Your task to perform on an android device: Search for apple airpods pro on ebay, select the first entry, add it to the cart, then select checkout. Image 0: 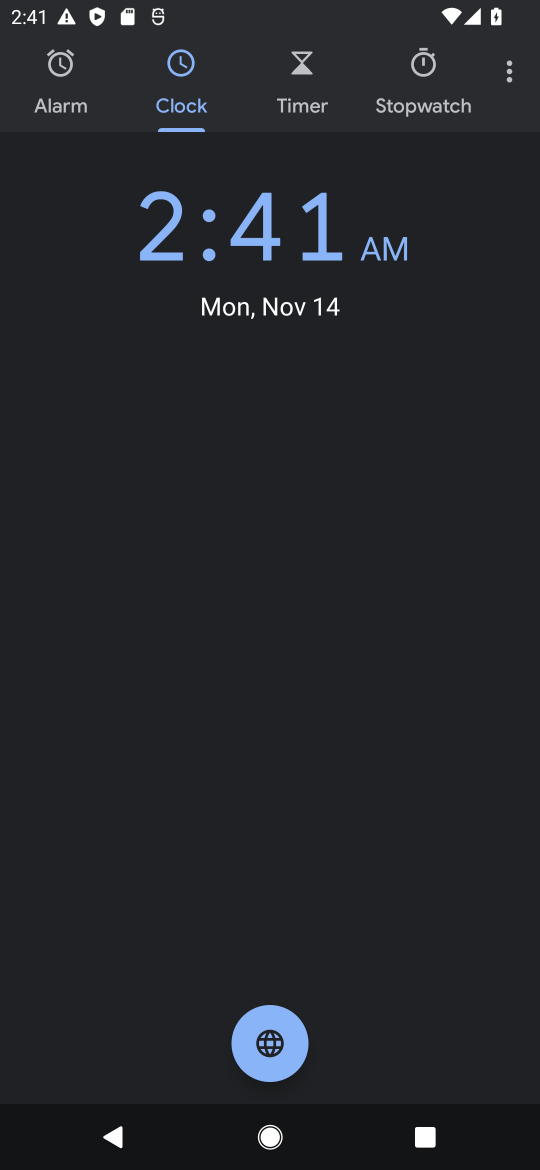
Step 0: press home button
Your task to perform on an android device: Search for apple airpods pro on ebay, select the first entry, add it to the cart, then select checkout. Image 1: 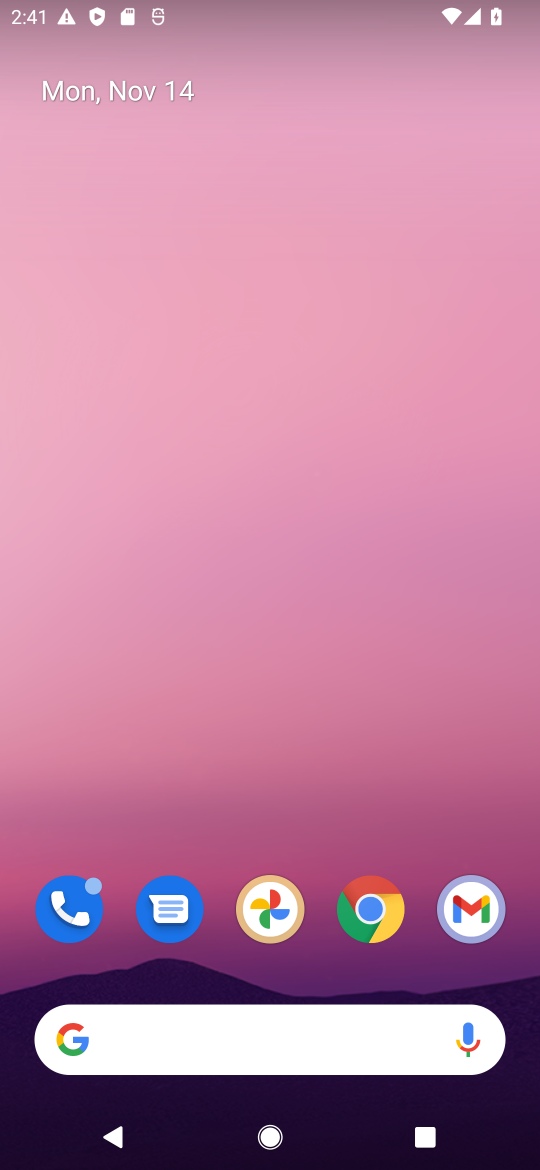
Step 1: drag from (318, 1002) to (264, 164)
Your task to perform on an android device: Search for apple airpods pro on ebay, select the first entry, add it to the cart, then select checkout. Image 2: 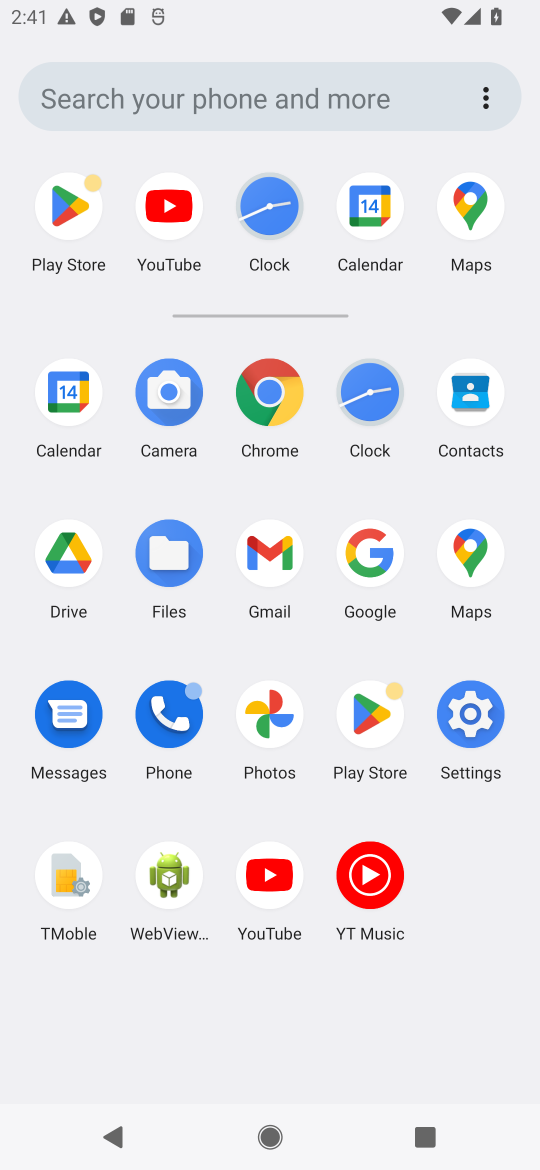
Step 2: click (267, 400)
Your task to perform on an android device: Search for apple airpods pro on ebay, select the first entry, add it to the cart, then select checkout. Image 3: 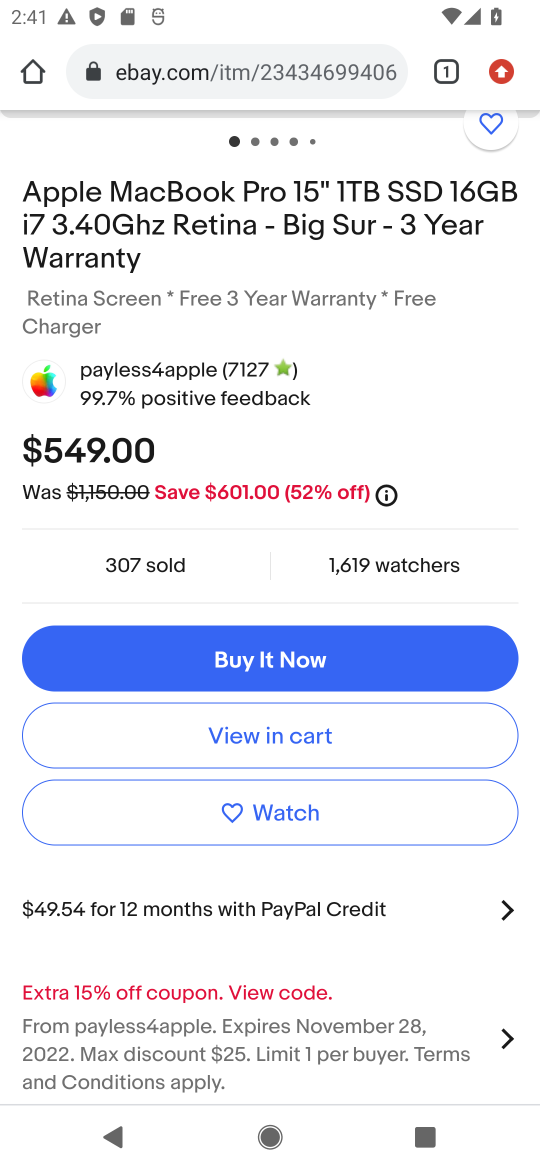
Step 3: click (309, 75)
Your task to perform on an android device: Search for apple airpods pro on ebay, select the first entry, add it to the cart, then select checkout. Image 4: 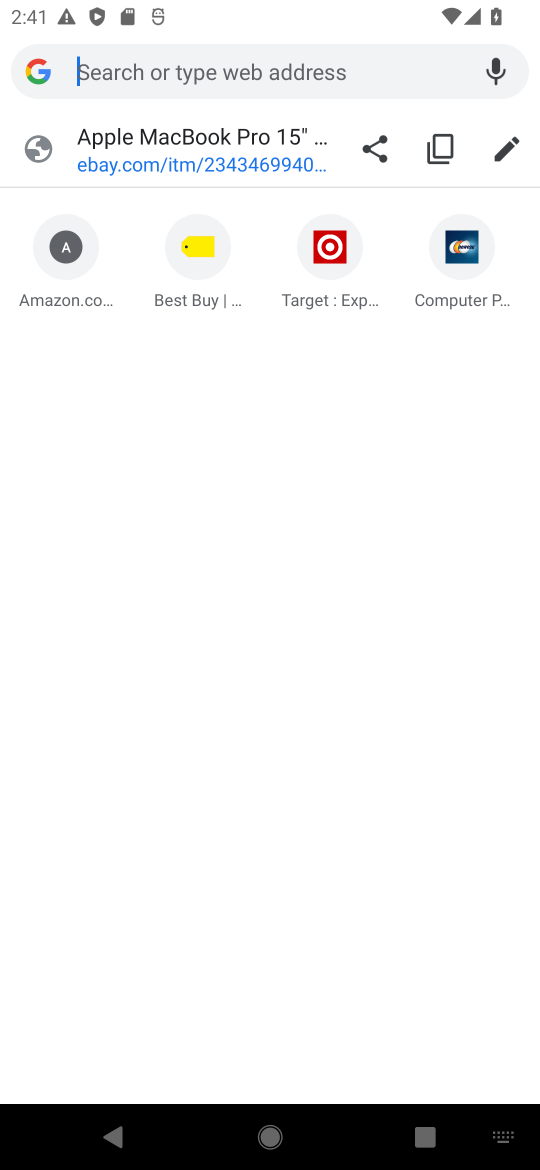
Step 4: type "ebay.com"
Your task to perform on an android device: Search for apple airpods pro on ebay, select the first entry, add it to the cart, then select checkout. Image 5: 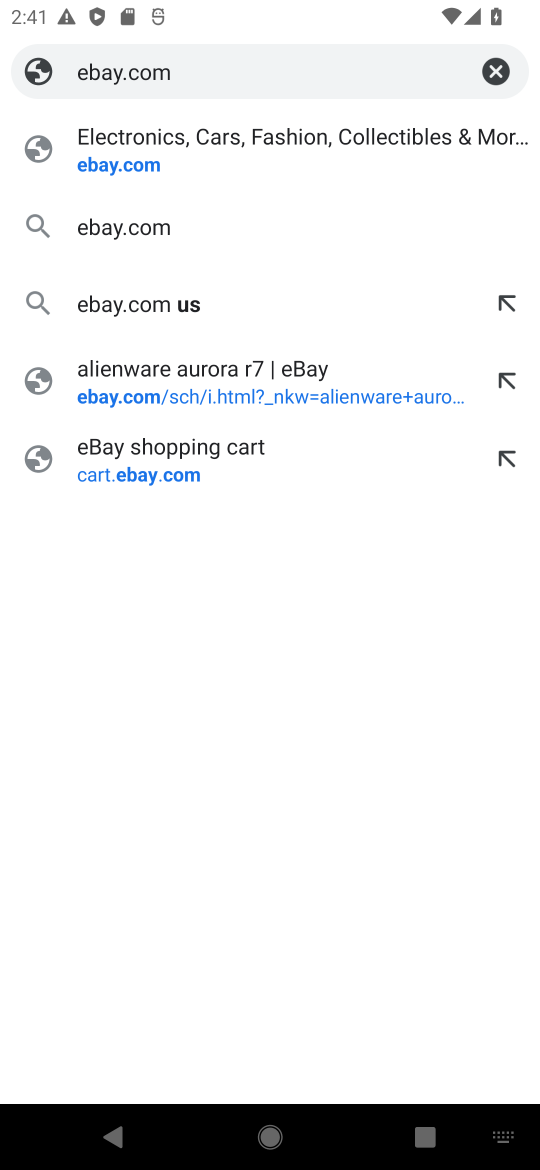
Step 5: press enter
Your task to perform on an android device: Search for apple airpods pro on ebay, select the first entry, add it to the cart, then select checkout. Image 6: 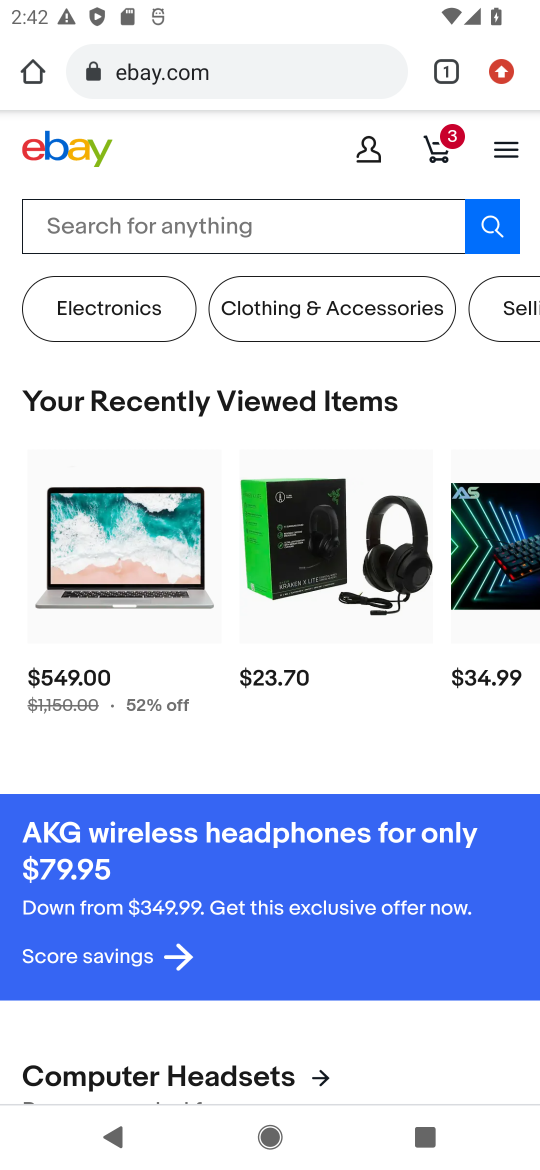
Step 6: click (244, 225)
Your task to perform on an android device: Search for apple airpods pro on ebay, select the first entry, add it to the cart, then select checkout. Image 7: 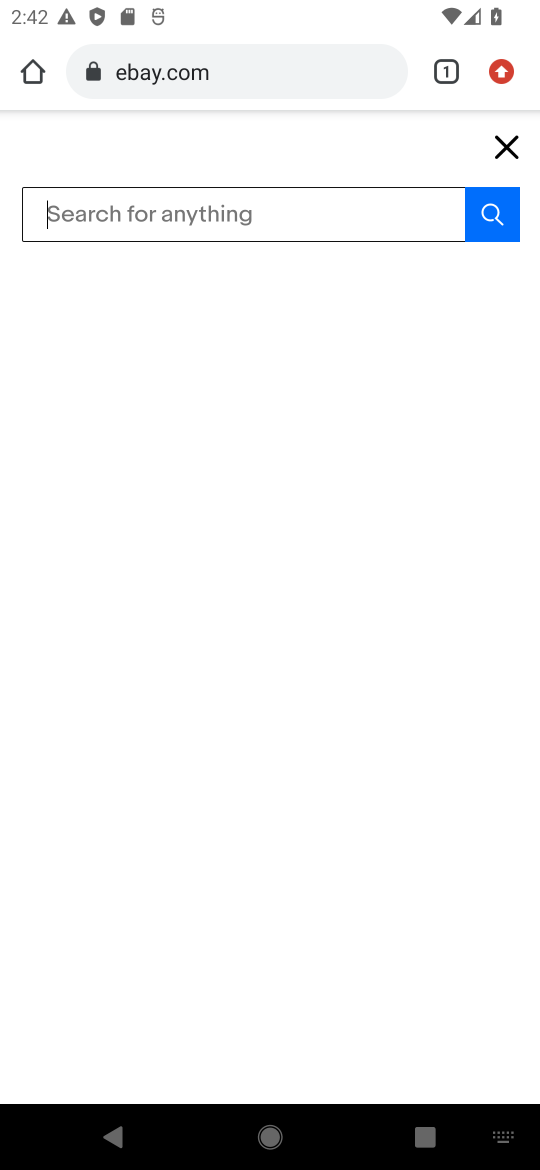
Step 7: type "apple airpods"
Your task to perform on an android device: Search for apple airpods pro on ebay, select the first entry, add it to the cart, then select checkout. Image 8: 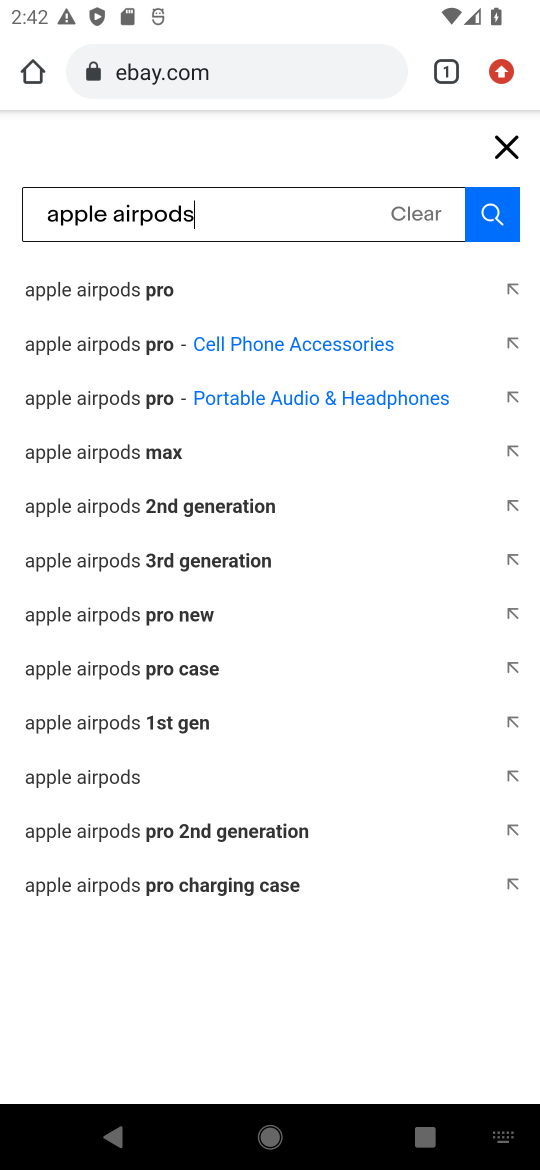
Step 8: press enter
Your task to perform on an android device: Search for apple airpods pro on ebay, select the first entry, add it to the cart, then select checkout. Image 9: 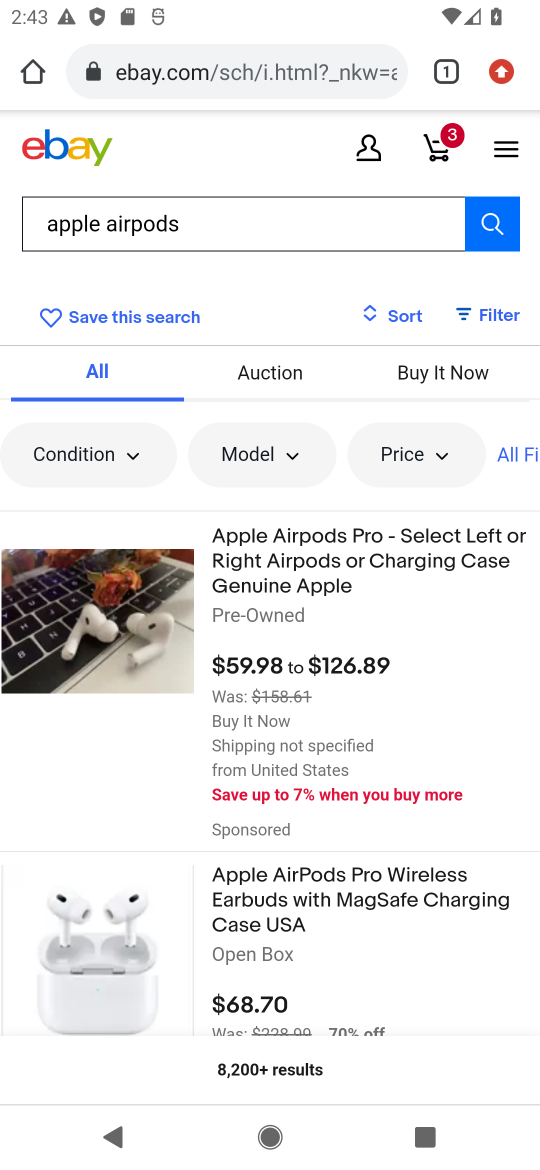
Step 9: click (275, 559)
Your task to perform on an android device: Search for apple airpods pro on ebay, select the first entry, add it to the cart, then select checkout. Image 10: 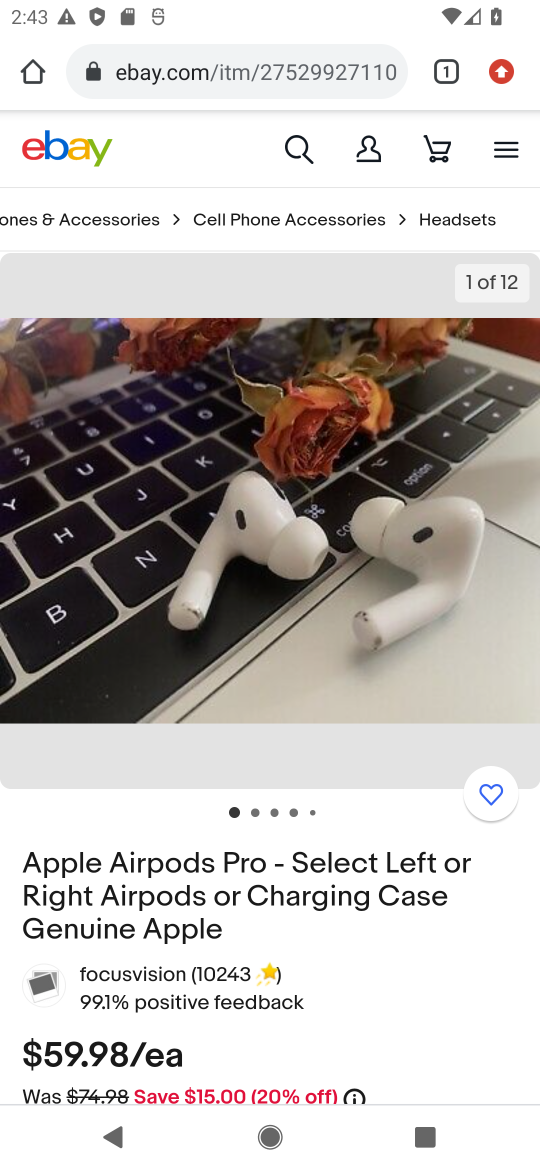
Step 10: drag from (263, 702) to (266, 134)
Your task to perform on an android device: Search for apple airpods pro on ebay, select the first entry, add it to the cart, then select checkout. Image 11: 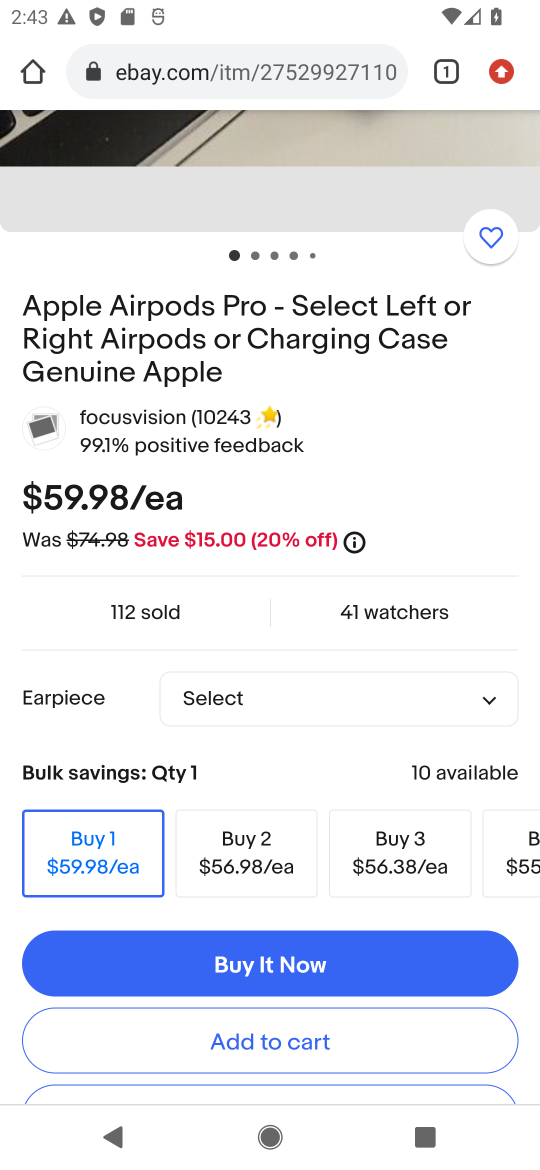
Step 11: click (291, 1023)
Your task to perform on an android device: Search for apple airpods pro on ebay, select the first entry, add it to the cart, then select checkout. Image 12: 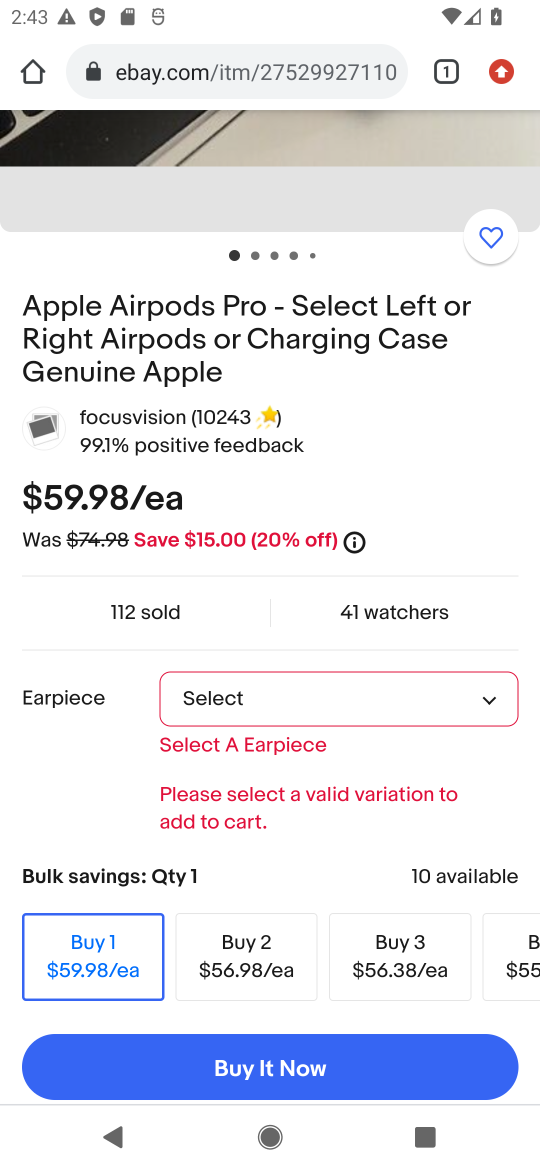
Step 12: click (363, 676)
Your task to perform on an android device: Search for apple airpods pro on ebay, select the first entry, add it to the cart, then select checkout. Image 13: 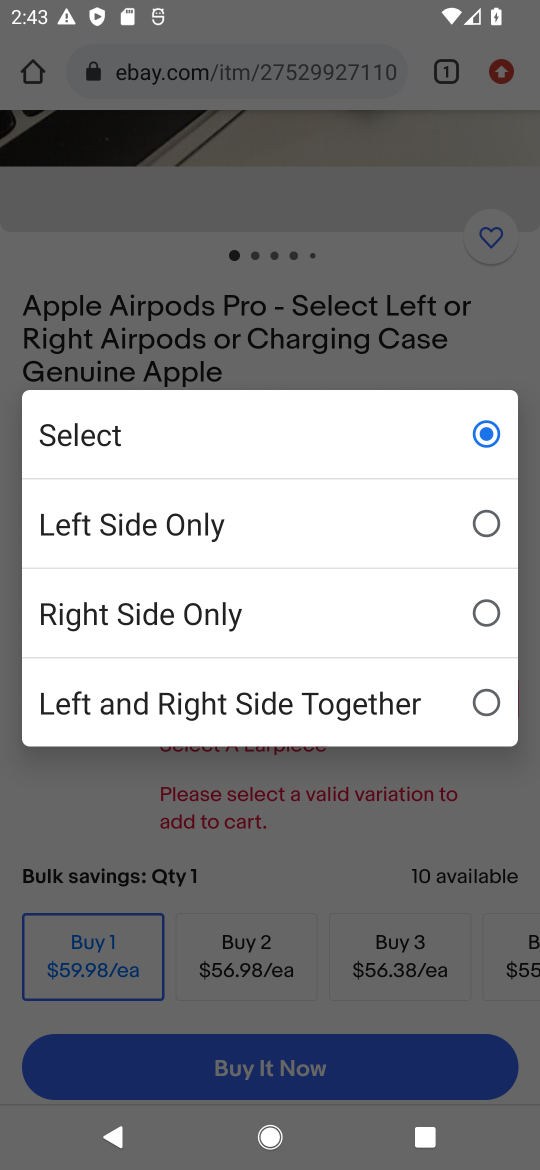
Step 13: click (306, 708)
Your task to perform on an android device: Search for apple airpods pro on ebay, select the first entry, add it to the cart, then select checkout. Image 14: 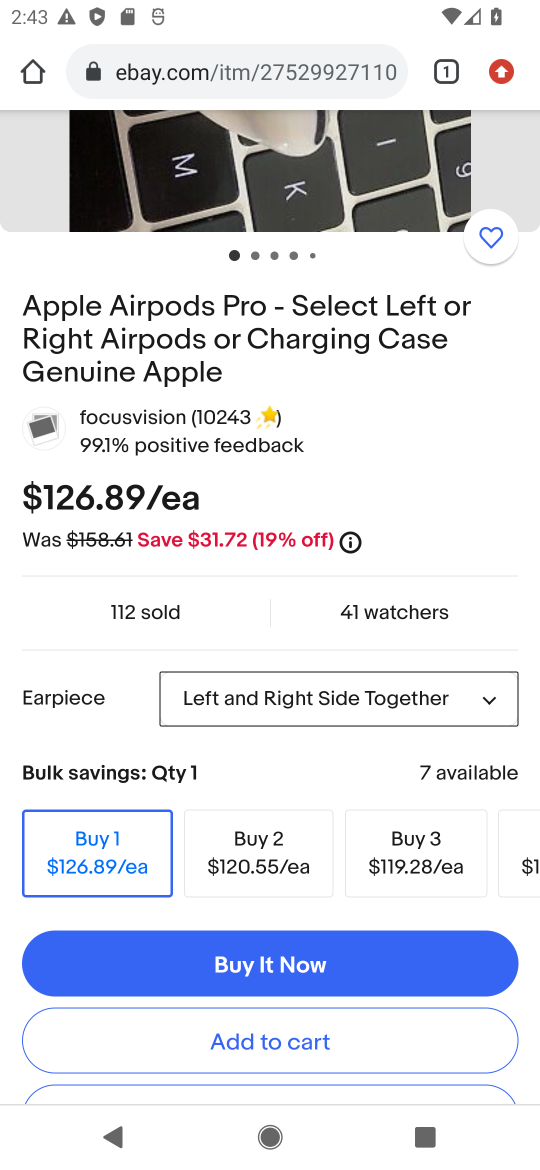
Step 14: click (239, 1039)
Your task to perform on an android device: Search for apple airpods pro on ebay, select the first entry, add it to the cart, then select checkout. Image 15: 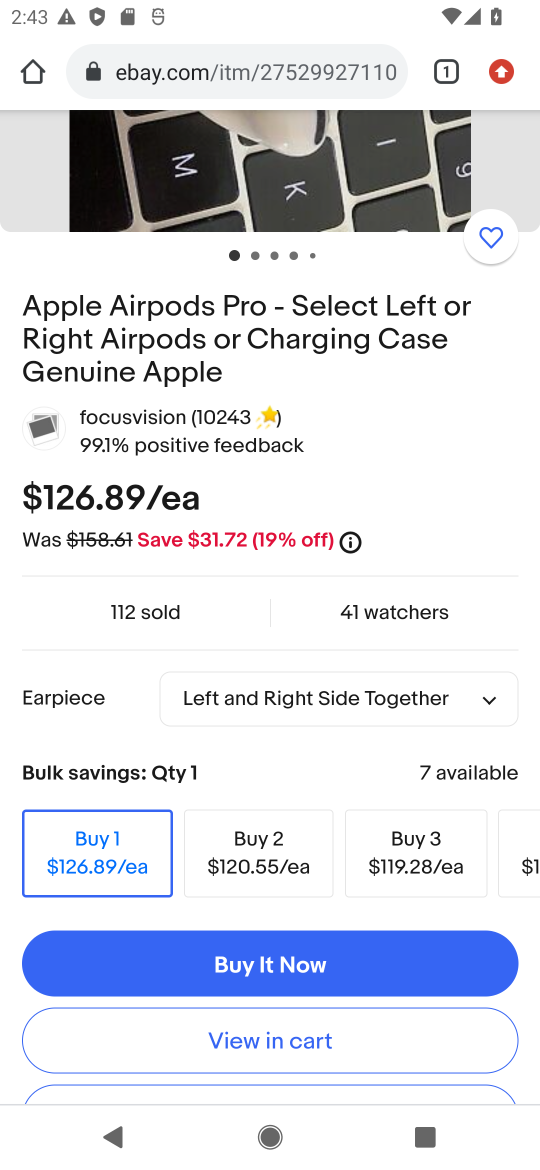
Step 15: click (337, 1044)
Your task to perform on an android device: Search for apple airpods pro on ebay, select the first entry, add it to the cart, then select checkout. Image 16: 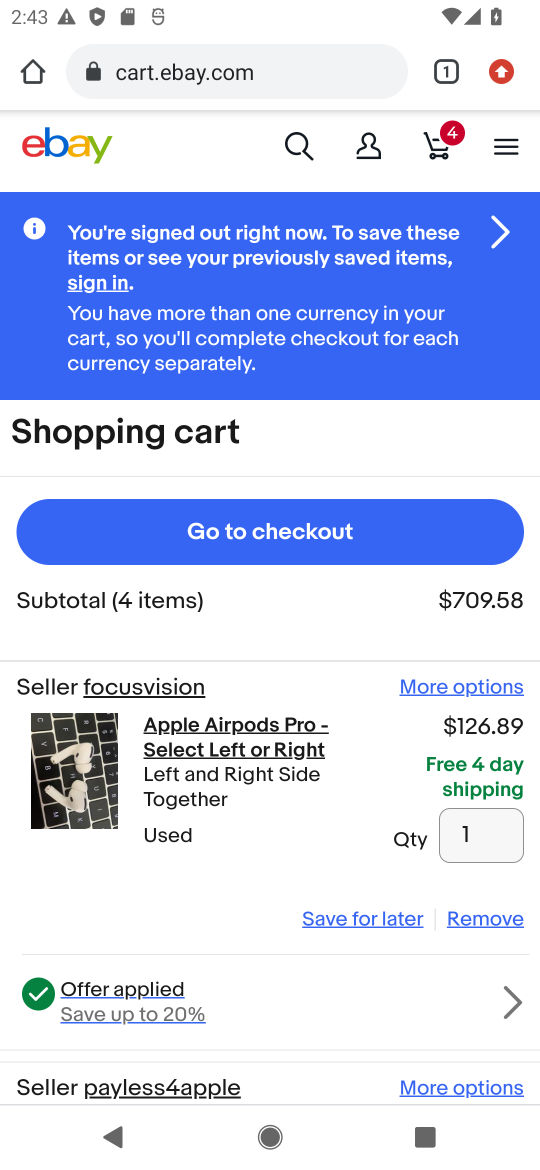
Step 16: click (323, 546)
Your task to perform on an android device: Search for apple airpods pro on ebay, select the first entry, add it to the cart, then select checkout. Image 17: 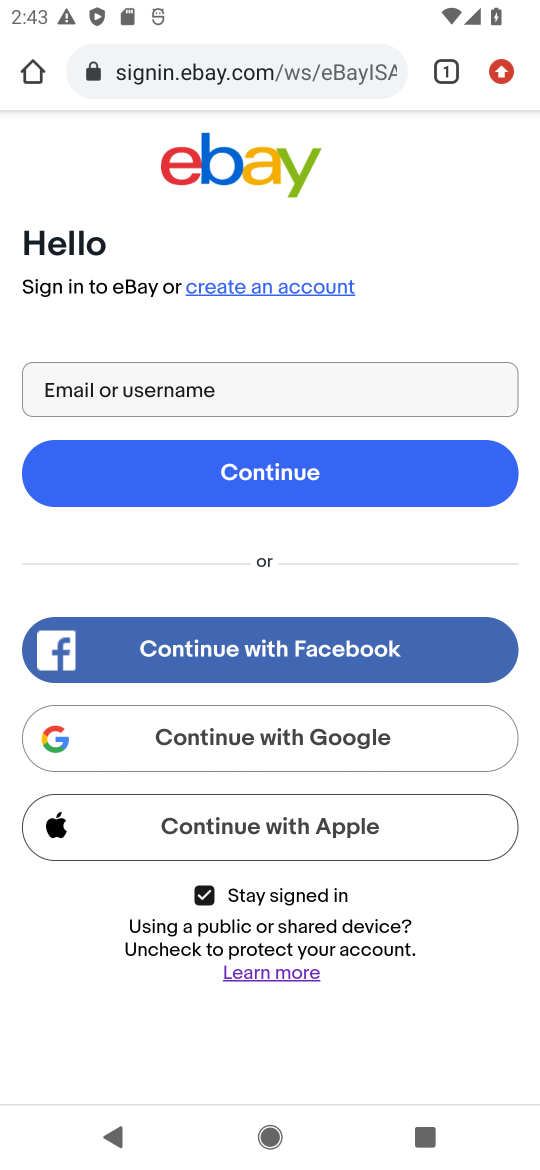
Step 17: task complete